Your task to perform on an android device: Open eBay Image 0: 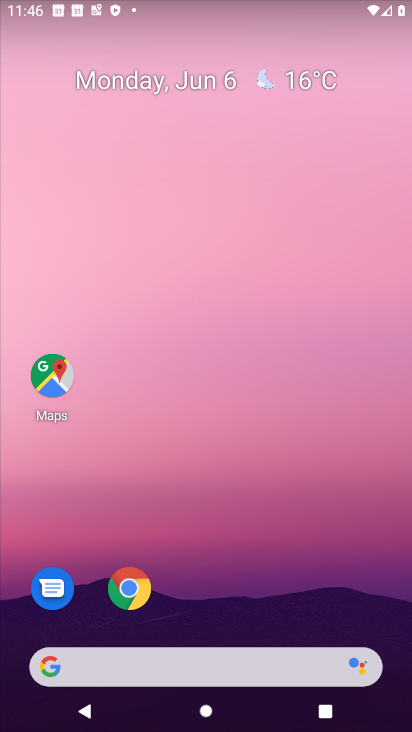
Step 0: click (119, 584)
Your task to perform on an android device: Open eBay Image 1: 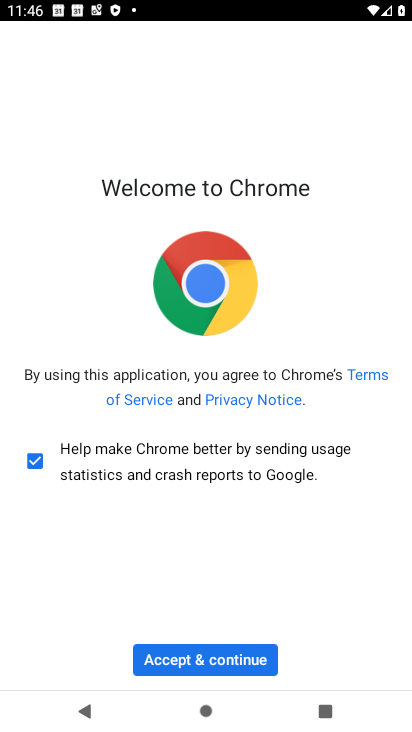
Step 1: click (195, 642)
Your task to perform on an android device: Open eBay Image 2: 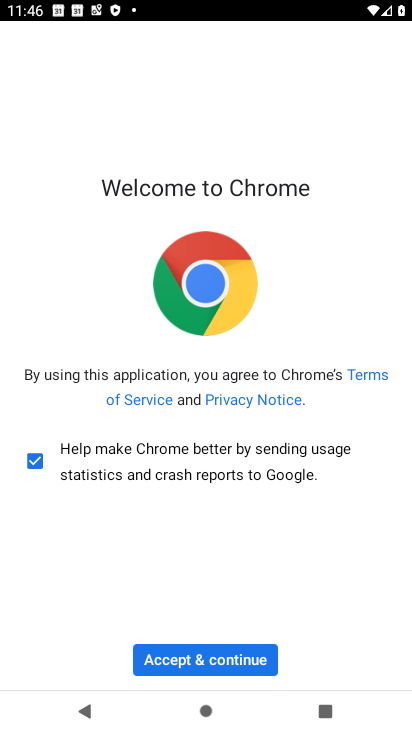
Step 2: click (195, 657)
Your task to perform on an android device: Open eBay Image 3: 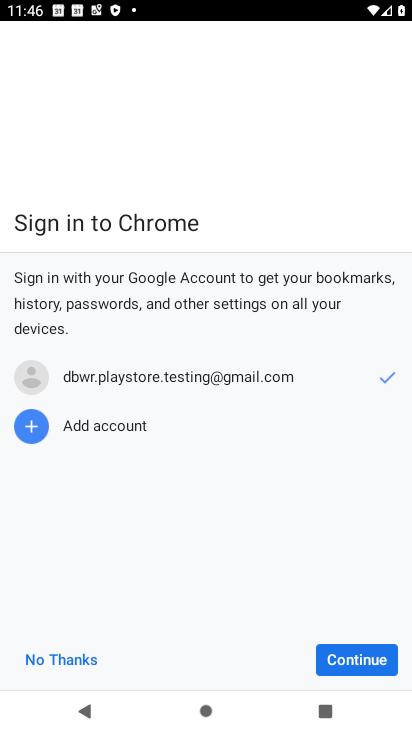
Step 3: click (376, 656)
Your task to perform on an android device: Open eBay Image 4: 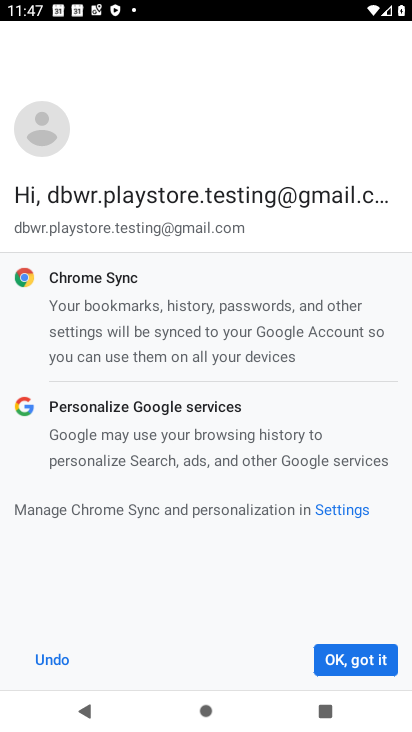
Step 4: click (376, 656)
Your task to perform on an android device: Open eBay Image 5: 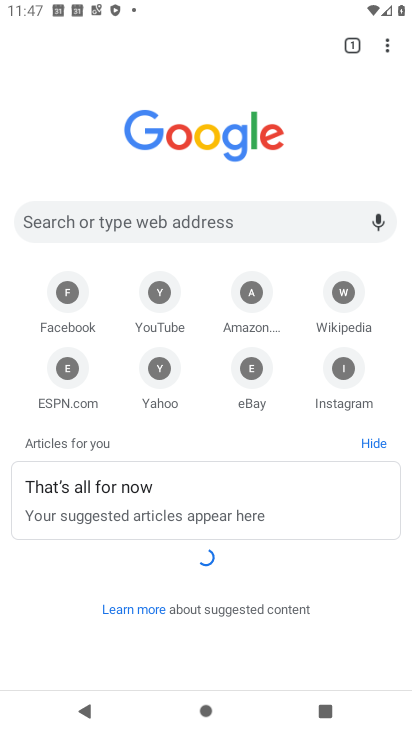
Step 5: click (245, 372)
Your task to perform on an android device: Open eBay Image 6: 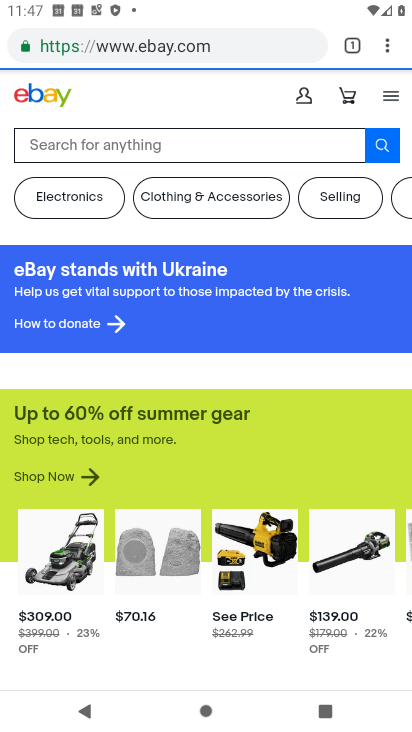
Step 6: task complete